Your task to perform on an android device: Go to battery settings Image 0: 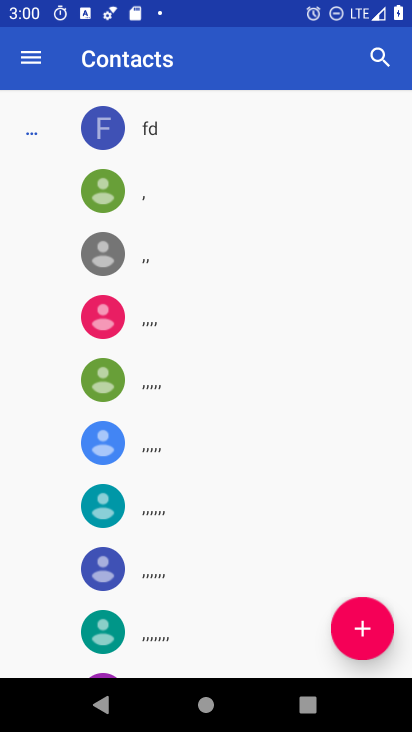
Step 0: press home button
Your task to perform on an android device: Go to battery settings Image 1: 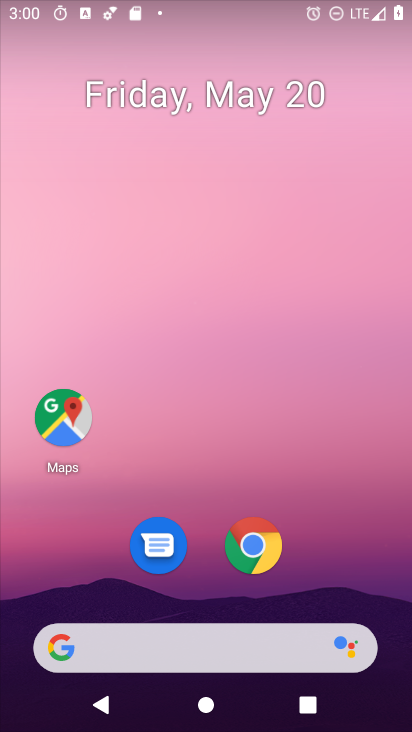
Step 1: drag from (262, 512) to (213, 1)
Your task to perform on an android device: Go to battery settings Image 2: 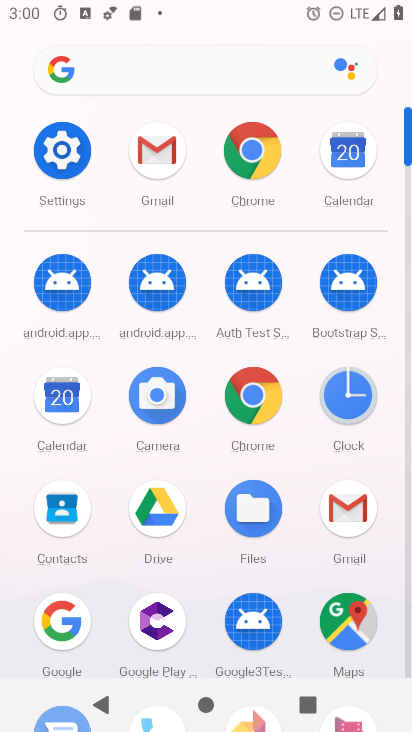
Step 2: click (63, 127)
Your task to perform on an android device: Go to battery settings Image 3: 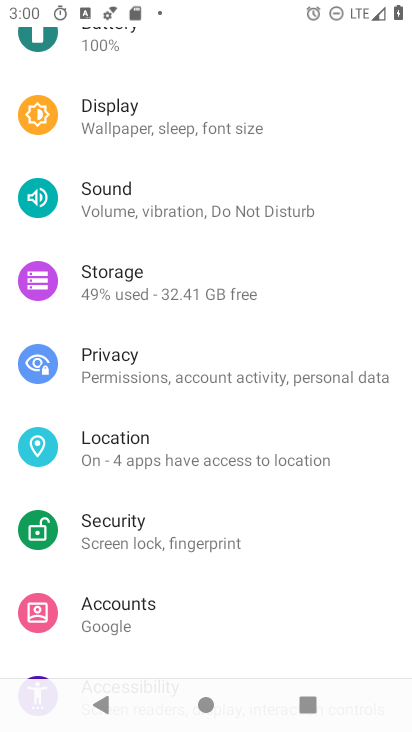
Step 3: drag from (152, 149) to (197, 572)
Your task to perform on an android device: Go to battery settings Image 4: 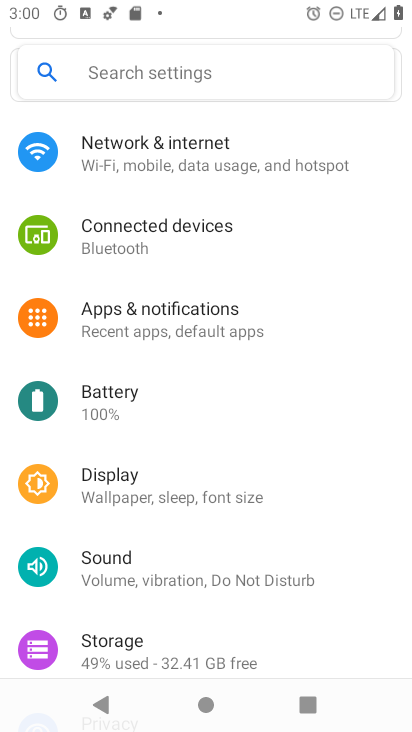
Step 4: click (146, 407)
Your task to perform on an android device: Go to battery settings Image 5: 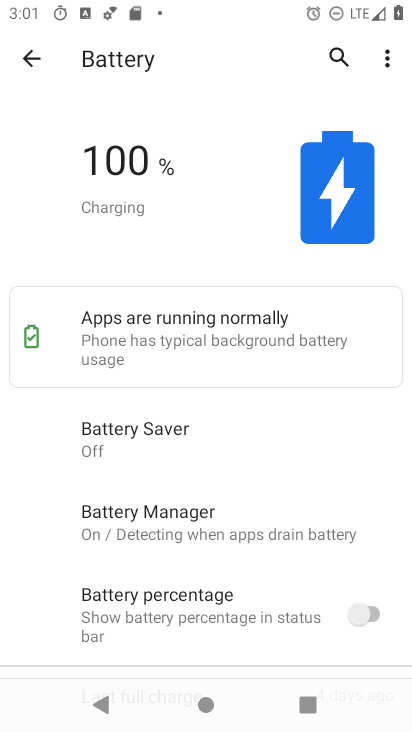
Step 5: task complete